Your task to perform on an android device: turn on sleep mode Image 0: 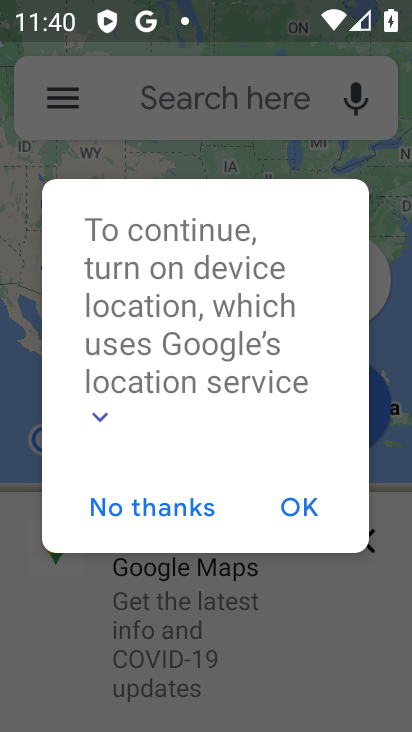
Step 0: press home button
Your task to perform on an android device: turn on sleep mode Image 1: 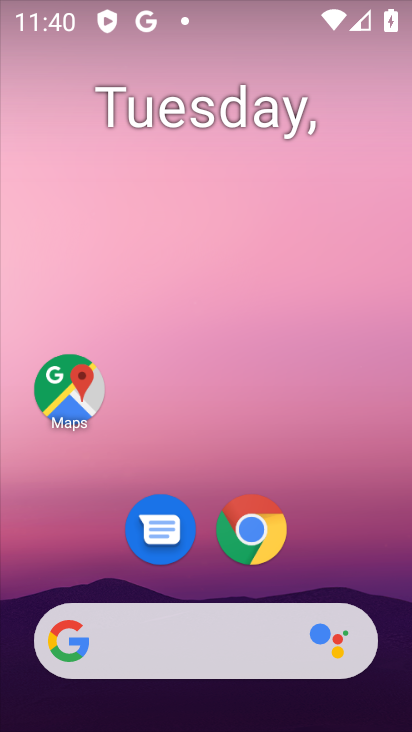
Step 1: drag from (71, 575) to (224, 107)
Your task to perform on an android device: turn on sleep mode Image 2: 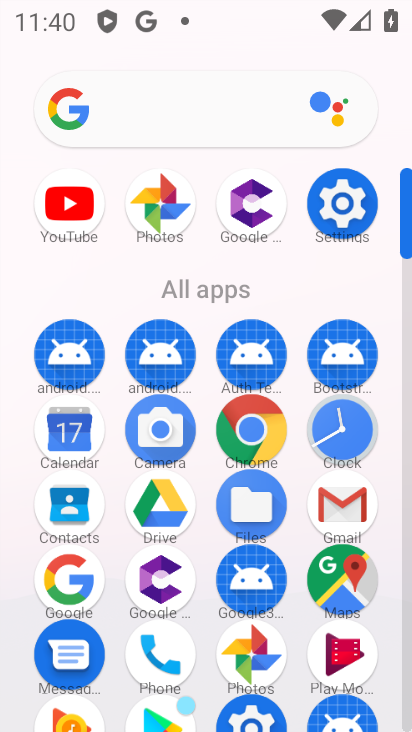
Step 2: drag from (189, 526) to (281, 235)
Your task to perform on an android device: turn on sleep mode Image 3: 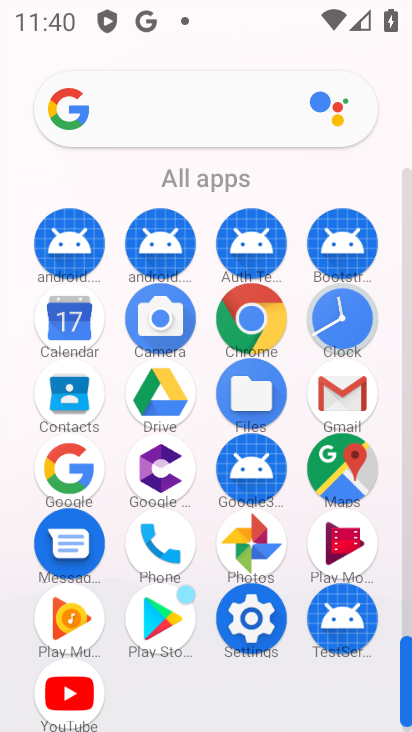
Step 3: click (247, 639)
Your task to perform on an android device: turn on sleep mode Image 4: 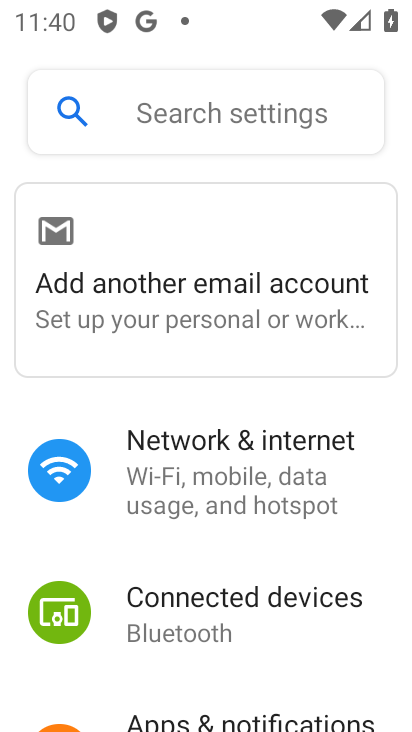
Step 4: drag from (215, 658) to (281, 424)
Your task to perform on an android device: turn on sleep mode Image 5: 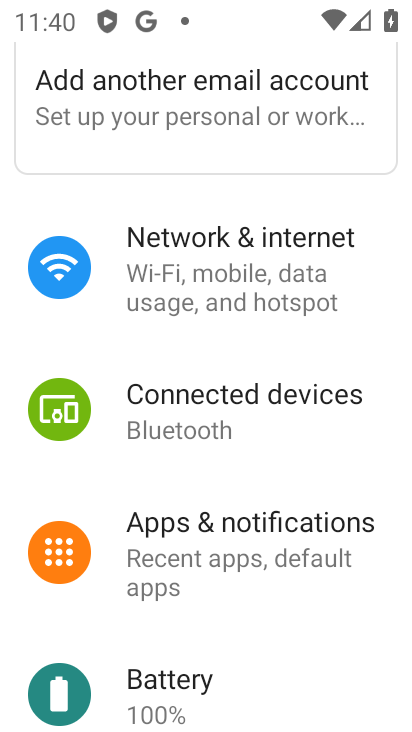
Step 5: drag from (240, 672) to (362, 322)
Your task to perform on an android device: turn on sleep mode Image 6: 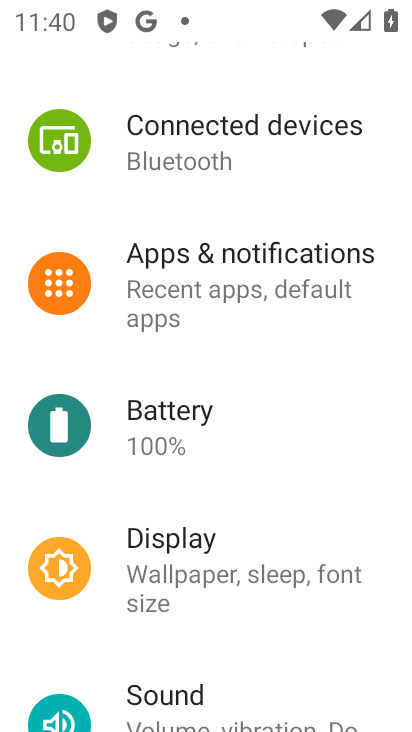
Step 6: click (240, 575)
Your task to perform on an android device: turn on sleep mode Image 7: 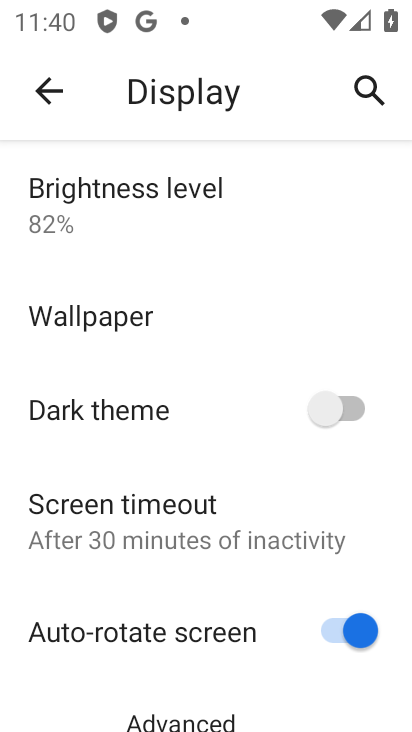
Step 7: drag from (168, 623) to (310, 219)
Your task to perform on an android device: turn on sleep mode Image 8: 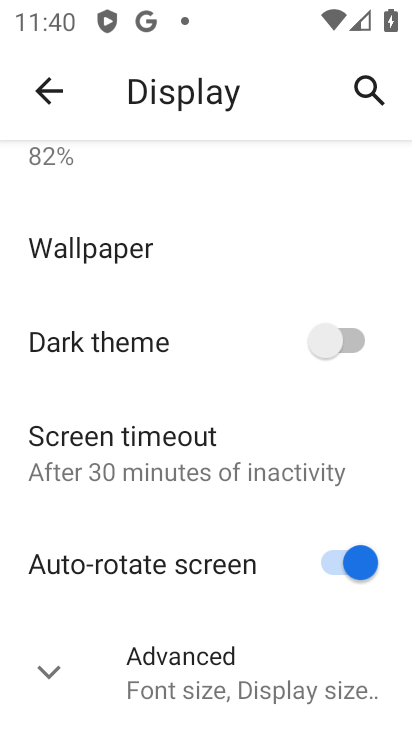
Step 8: click (204, 675)
Your task to perform on an android device: turn on sleep mode Image 9: 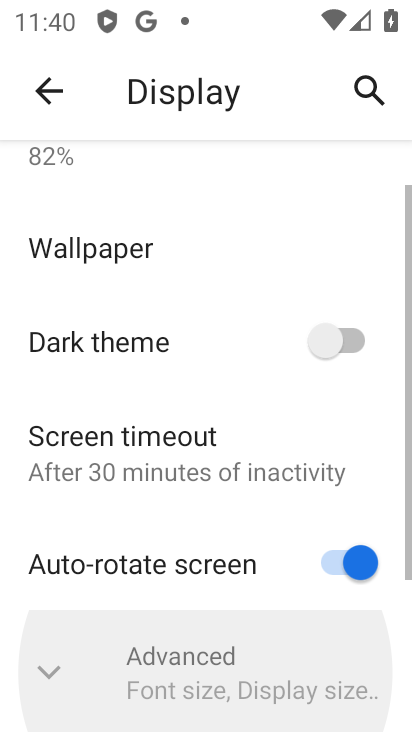
Step 9: task complete